Your task to perform on an android device: change keyboard looks Image 0: 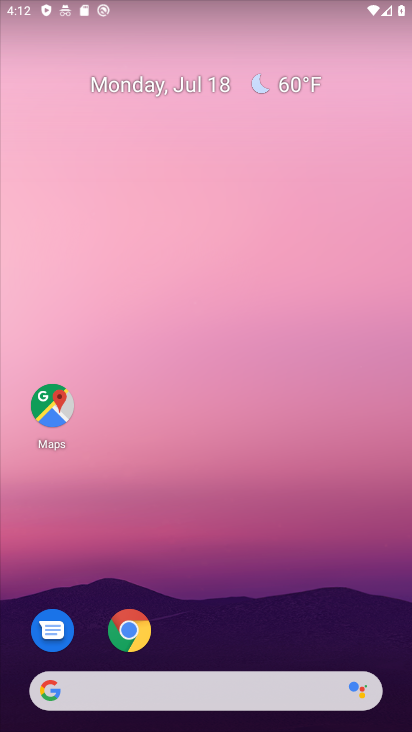
Step 0: drag from (411, 641) to (136, 58)
Your task to perform on an android device: change keyboard looks Image 1: 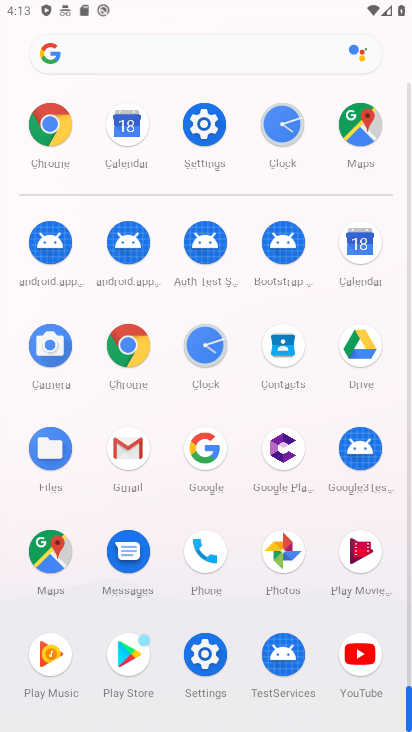
Step 1: click (195, 113)
Your task to perform on an android device: change keyboard looks Image 2: 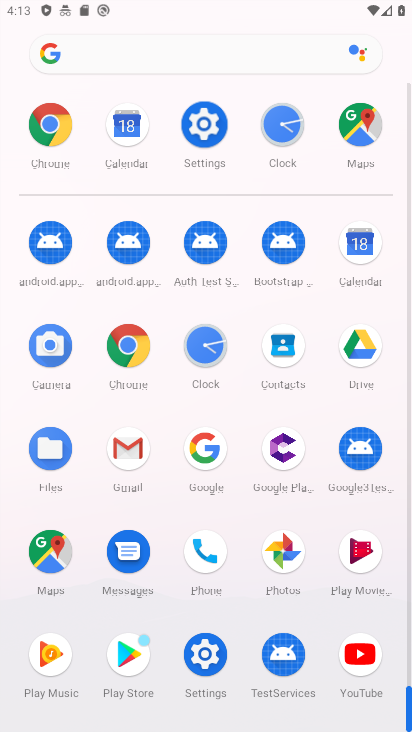
Step 2: click (194, 127)
Your task to perform on an android device: change keyboard looks Image 3: 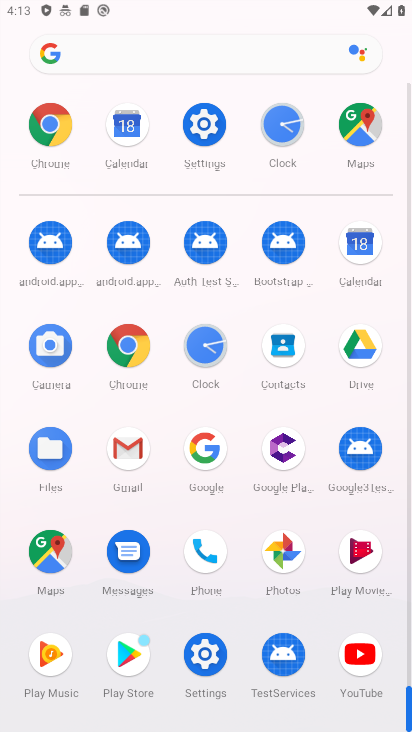
Step 3: click (197, 125)
Your task to perform on an android device: change keyboard looks Image 4: 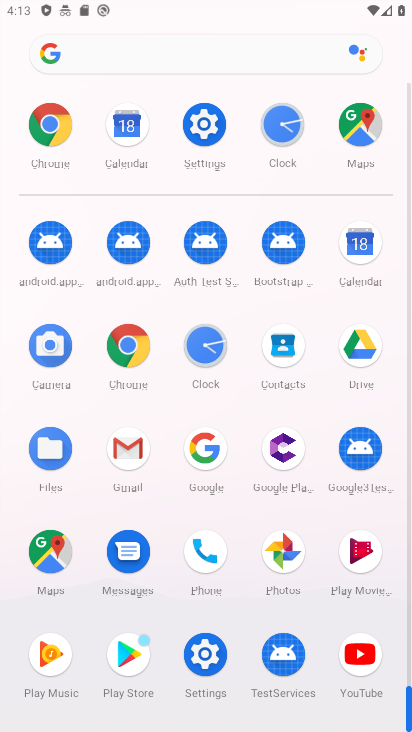
Step 4: click (201, 117)
Your task to perform on an android device: change keyboard looks Image 5: 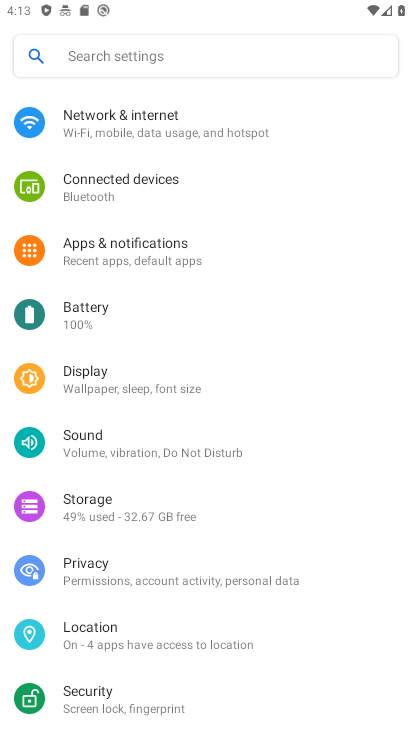
Step 5: click (194, 128)
Your task to perform on an android device: change keyboard looks Image 6: 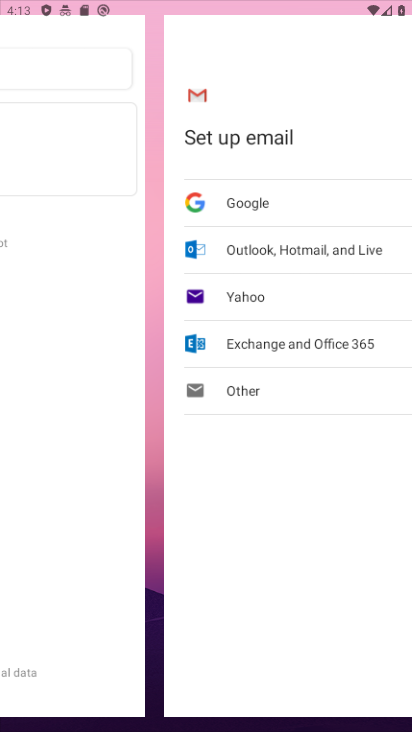
Step 6: drag from (139, 523) to (115, 101)
Your task to perform on an android device: change keyboard looks Image 7: 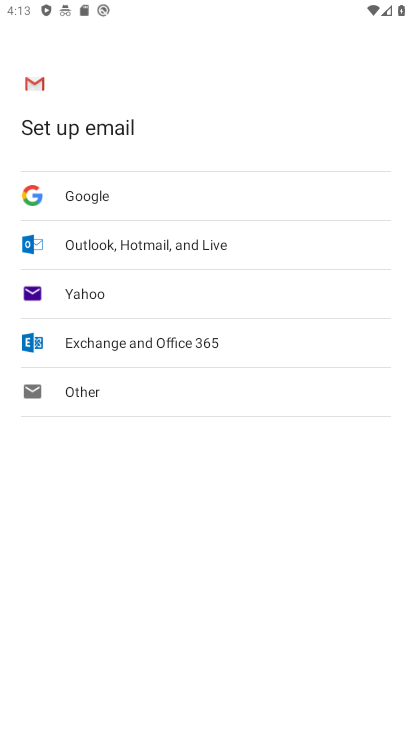
Step 7: drag from (105, 493) to (90, 174)
Your task to perform on an android device: change keyboard looks Image 8: 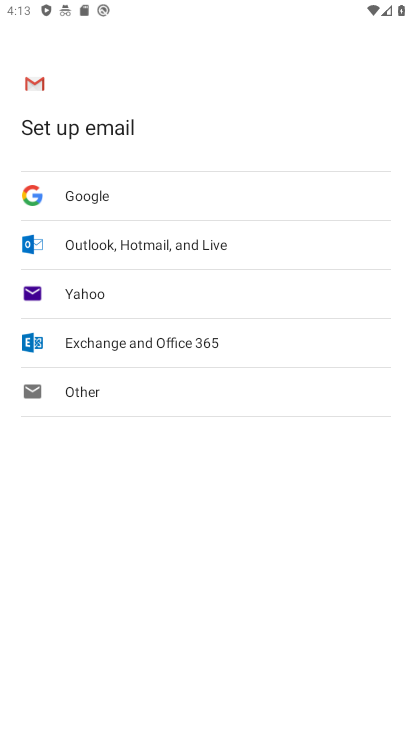
Step 8: press back button
Your task to perform on an android device: change keyboard looks Image 9: 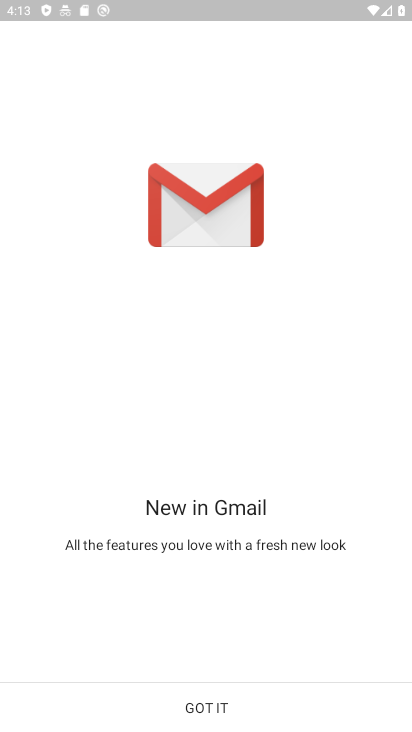
Step 9: press back button
Your task to perform on an android device: change keyboard looks Image 10: 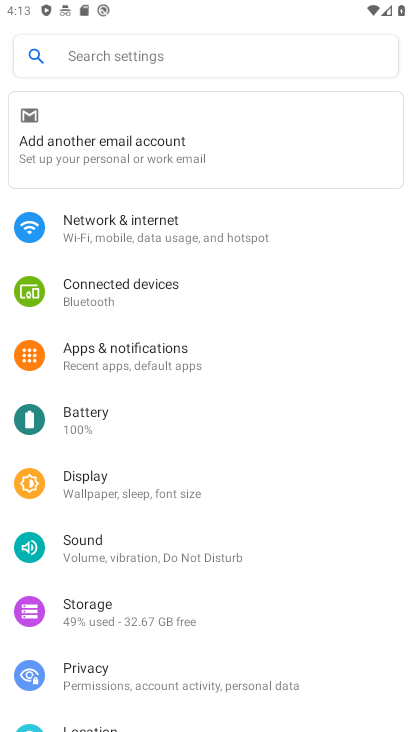
Step 10: drag from (104, 471) to (77, 245)
Your task to perform on an android device: change keyboard looks Image 11: 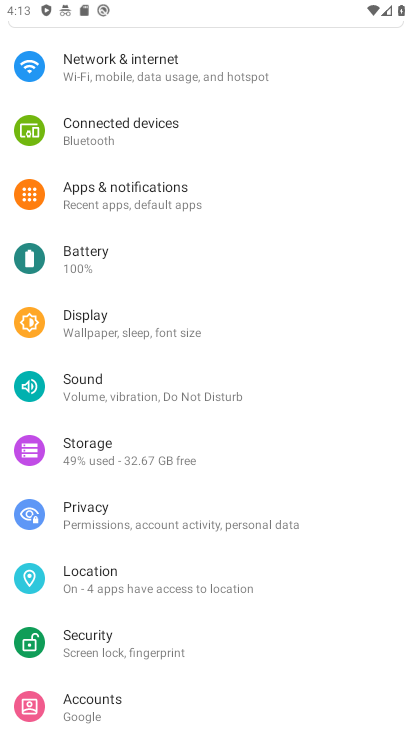
Step 11: drag from (188, 511) to (177, 300)
Your task to perform on an android device: change keyboard looks Image 12: 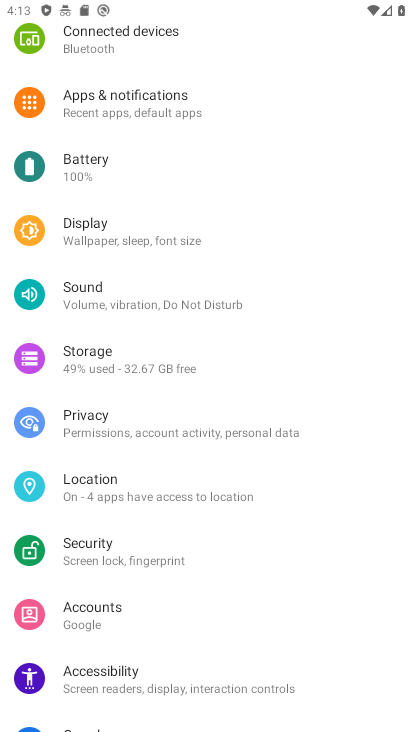
Step 12: drag from (160, 552) to (98, 295)
Your task to perform on an android device: change keyboard looks Image 13: 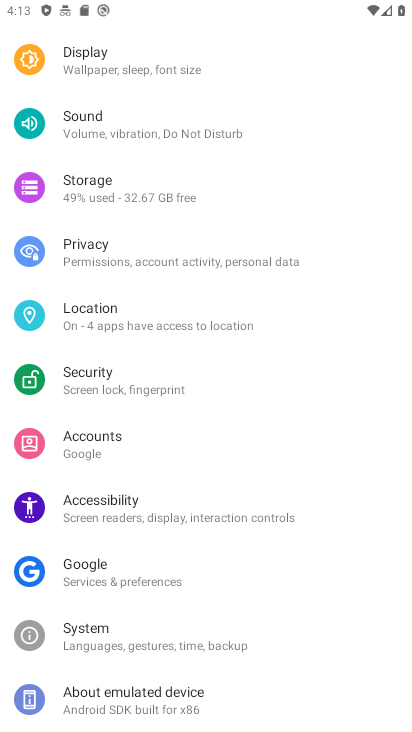
Step 13: click (108, 630)
Your task to perform on an android device: change keyboard looks Image 14: 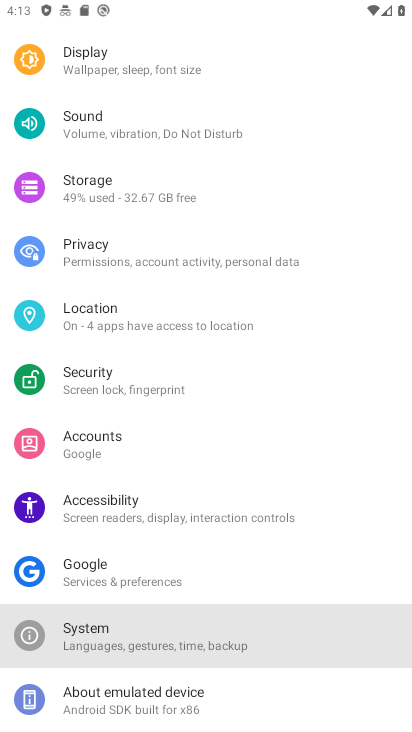
Step 14: click (108, 632)
Your task to perform on an android device: change keyboard looks Image 15: 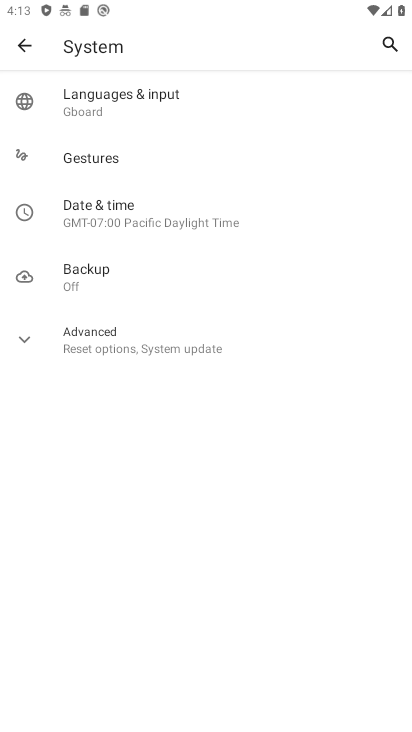
Step 15: click (73, 108)
Your task to perform on an android device: change keyboard looks Image 16: 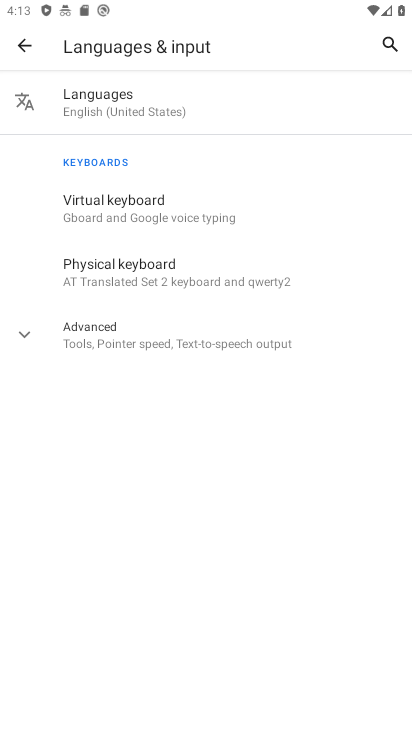
Step 16: click (93, 207)
Your task to perform on an android device: change keyboard looks Image 17: 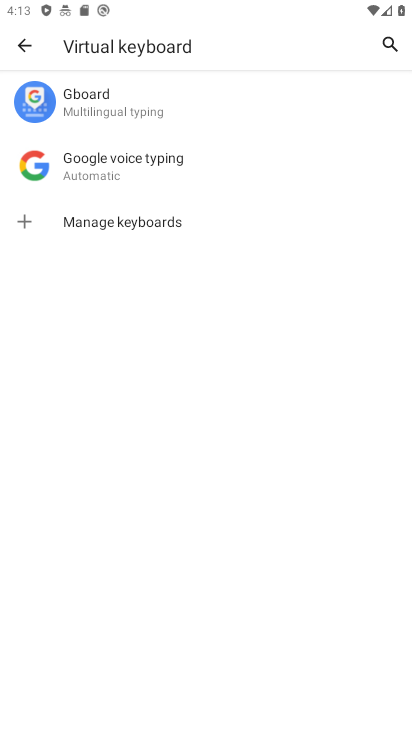
Step 17: click (88, 114)
Your task to perform on an android device: change keyboard looks Image 18: 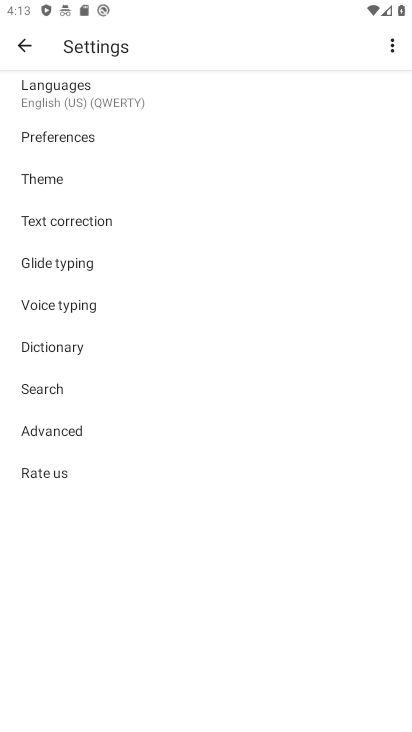
Step 18: click (35, 174)
Your task to perform on an android device: change keyboard looks Image 19: 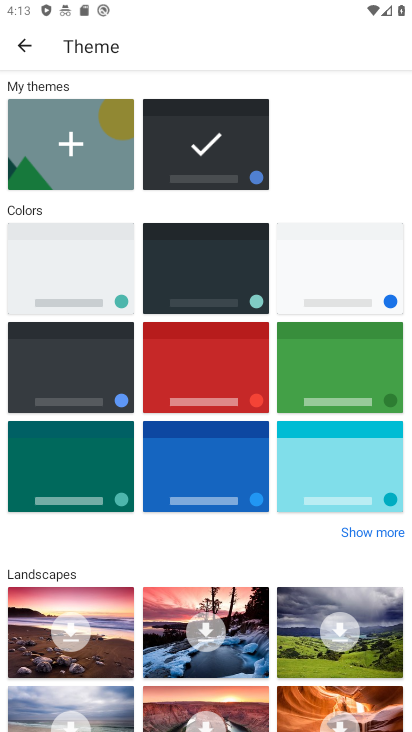
Step 19: click (70, 463)
Your task to perform on an android device: change keyboard looks Image 20: 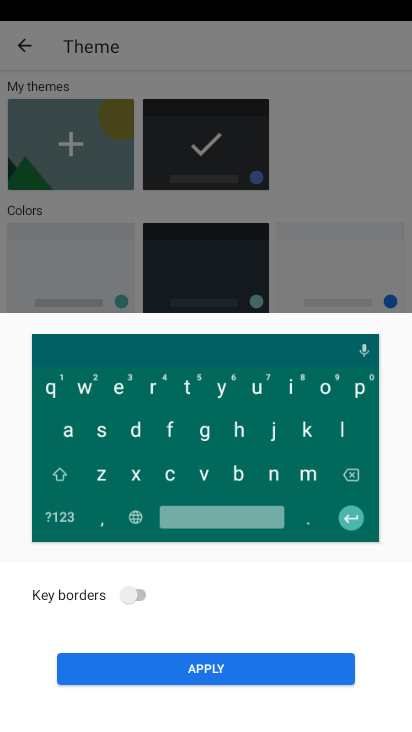
Step 20: click (229, 662)
Your task to perform on an android device: change keyboard looks Image 21: 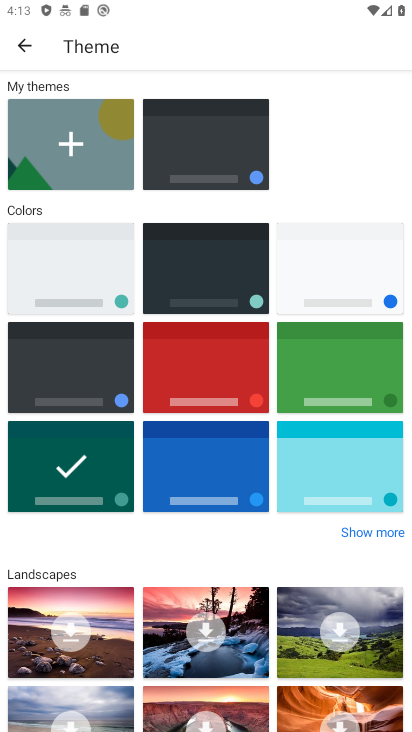
Step 21: click (71, 463)
Your task to perform on an android device: change keyboard looks Image 22: 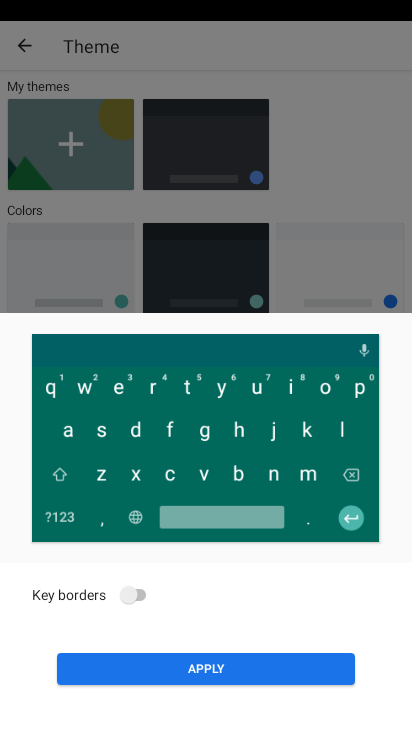
Step 22: click (79, 460)
Your task to perform on an android device: change keyboard looks Image 23: 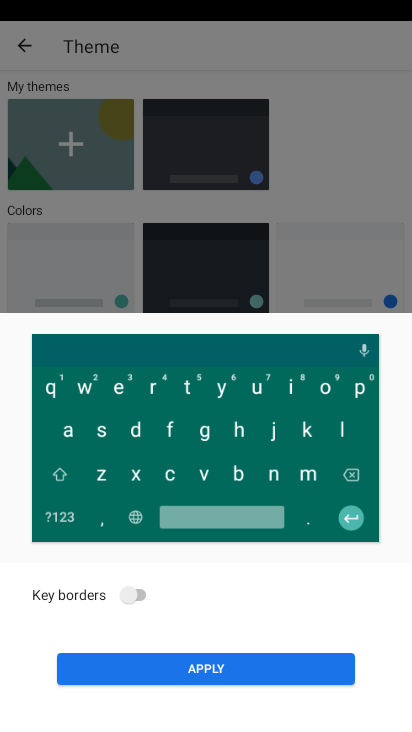
Step 23: click (81, 460)
Your task to perform on an android device: change keyboard looks Image 24: 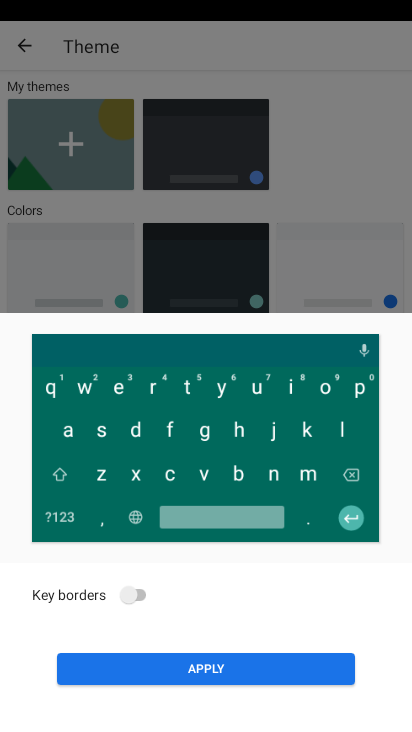
Step 24: click (240, 662)
Your task to perform on an android device: change keyboard looks Image 25: 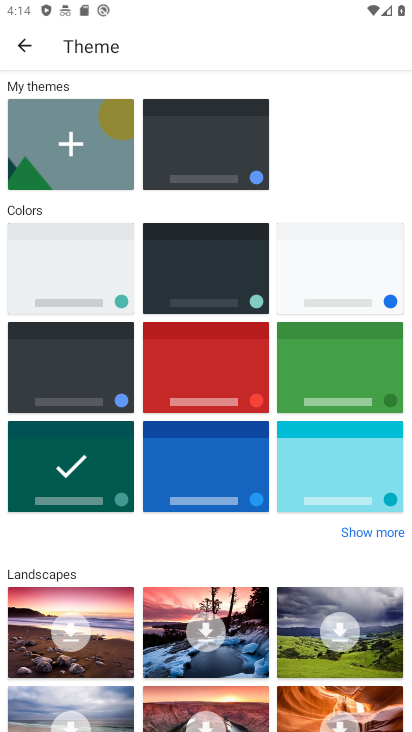
Step 25: task complete